Your task to perform on an android device: Search for pizza restaurants on Maps Image 0: 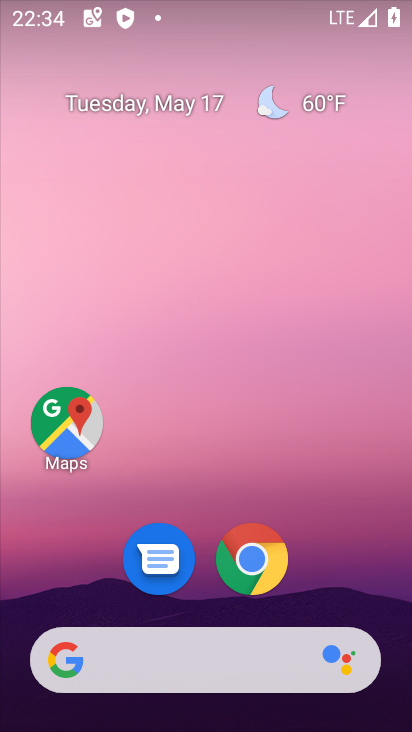
Step 0: click (72, 431)
Your task to perform on an android device: Search for pizza restaurants on Maps Image 1: 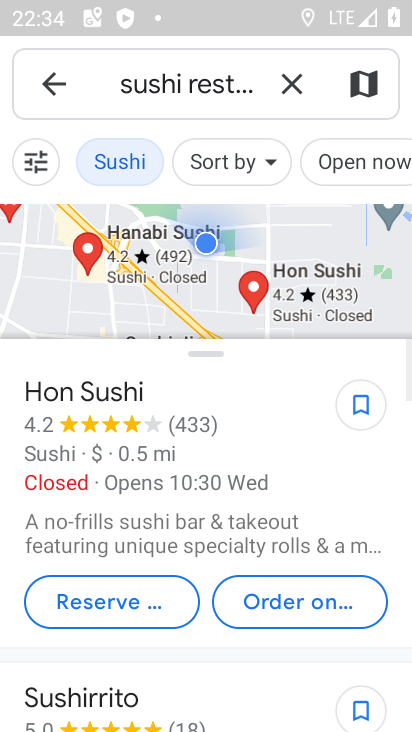
Step 1: click (217, 67)
Your task to perform on an android device: Search for pizza restaurants on Maps Image 2: 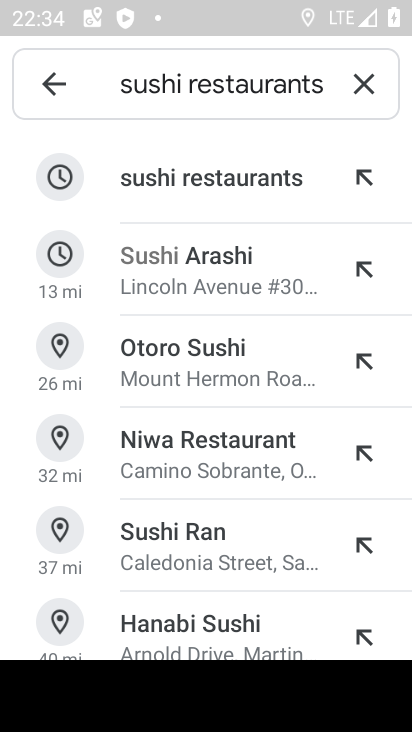
Step 2: click (357, 78)
Your task to perform on an android device: Search for pizza restaurants on Maps Image 3: 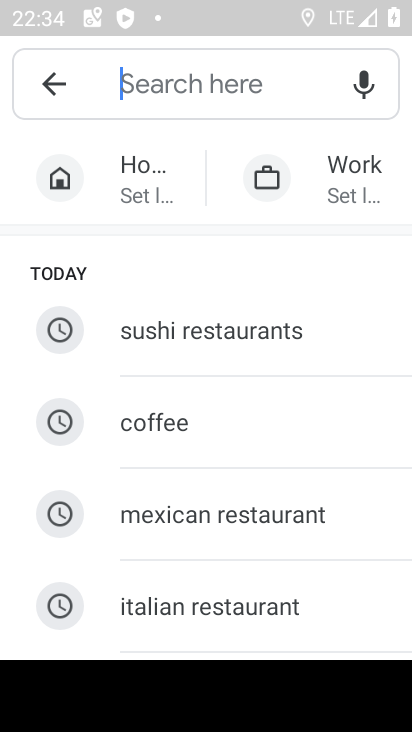
Step 3: type "pizza restaurants"
Your task to perform on an android device: Search for pizza restaurants on Maps Image 4: 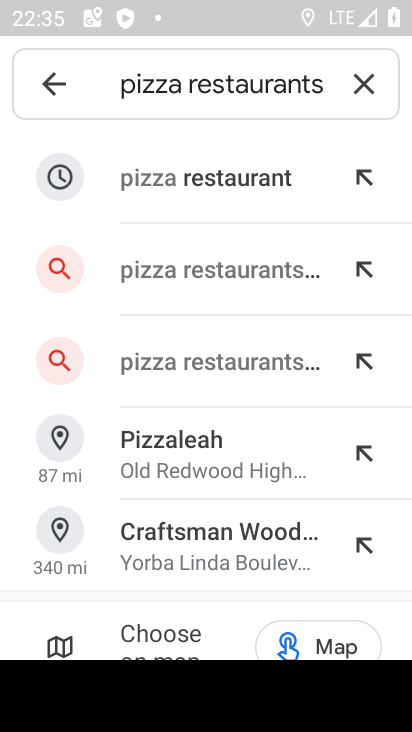
Step 4: press enter
Your task to perform on an android device: Search for pizza restaurants on Maps Image 5: 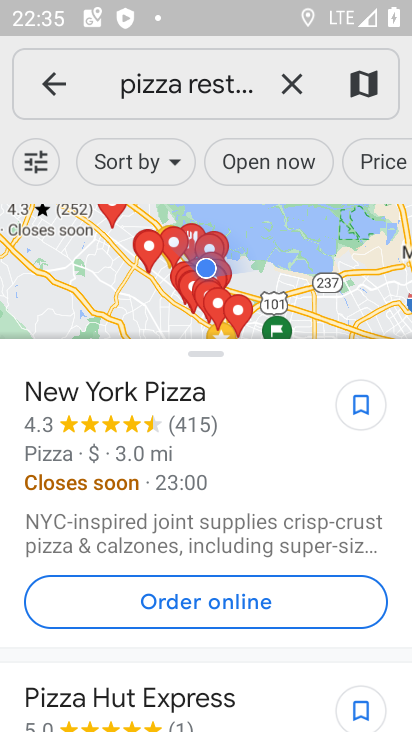
Step 5: task complete